Your task to perform on an android device: Open Amazon Image 0: 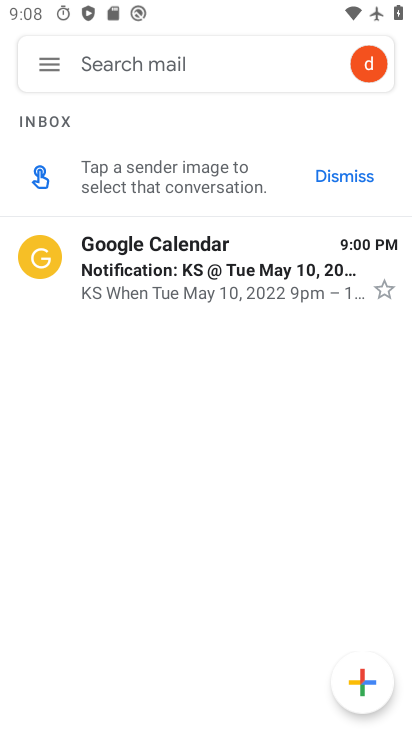
Step 0: press home button
Your task to perform on an android device: Open Amazon Image 1: 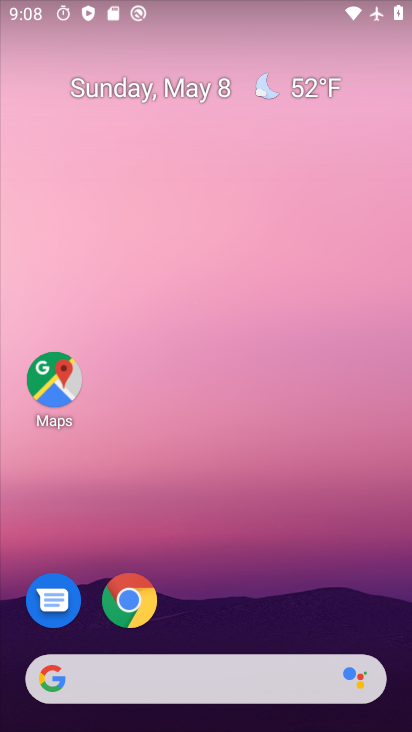
Step 1: click (143, 602)
Your task to perform on an android device: Open Amazon Image 2: 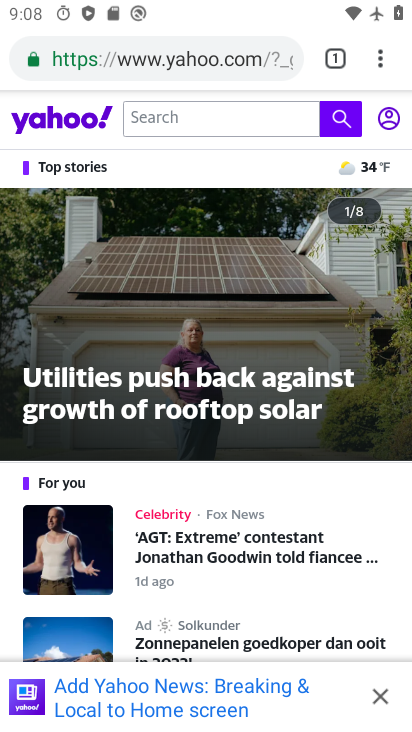
Step 2: click (202, 53)
Your task to perform on an android device: Open Amazon Image 3: 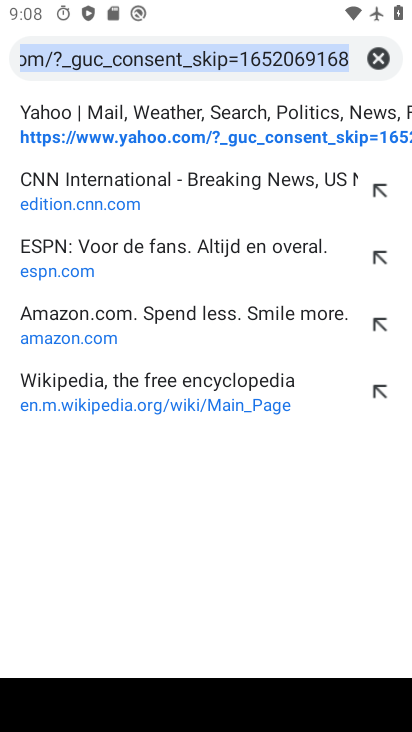
Step 3: type "Amazon"
Your task to perform on an android device: Open Amazon Image 4: 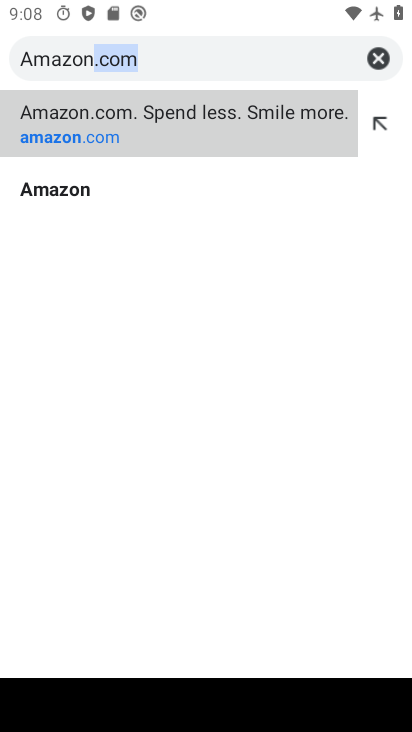
Step 4: click (89, 146)
Your task to perform on an android device: Open Amazon Image 5: 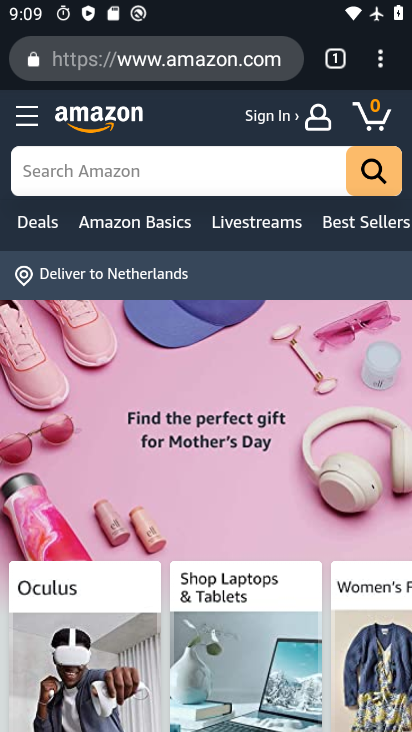
Step 5: task complete